Your task to perform on an android device: Open the calendar and show me this week's events? Image 0: 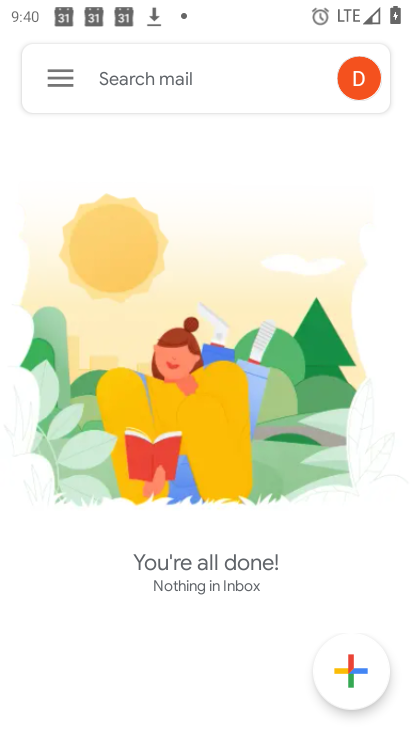
Step 0: press home button
Your task to perform on an android device: Open the calendar and show me this week's events? Image 1: 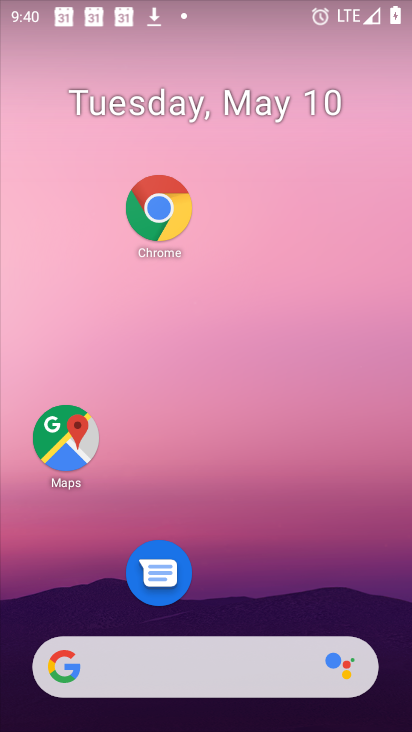
Step 1: drag from (249, 626) to (248, 273)
Your task to perform on an android device: Open the calendar and show me this week's events? Image 2: 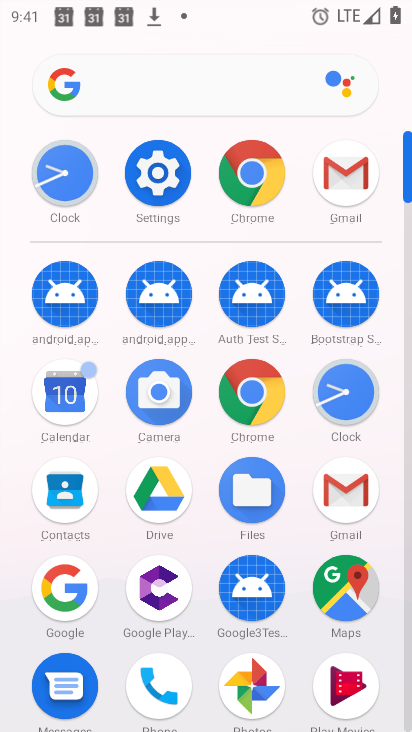
Step 2: click (81, 403)
Your task to perform on an android device: Open the calendar and show me this week's events? Image 3: 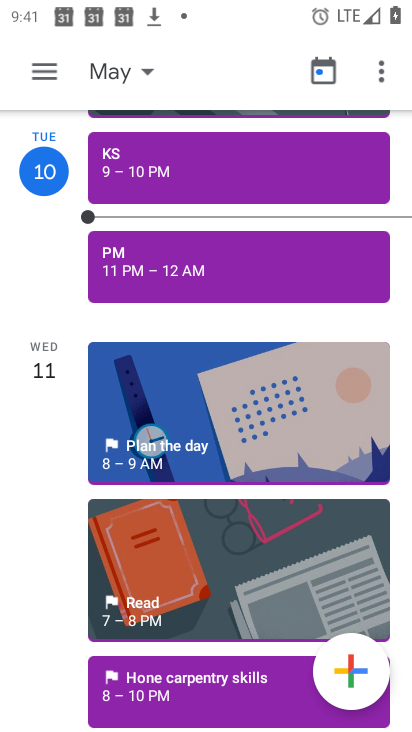
Step 3: click (37, 70)
Your task to perform on an android device: Open the calendar and show me this week's events? Image 4: 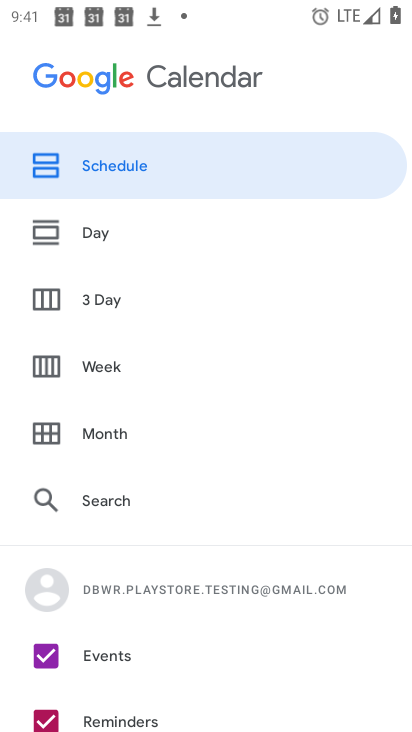
Step 4: click (162, 342)
Your task to perform on an android device: Open the calendar and show me this week's events? Image 5: 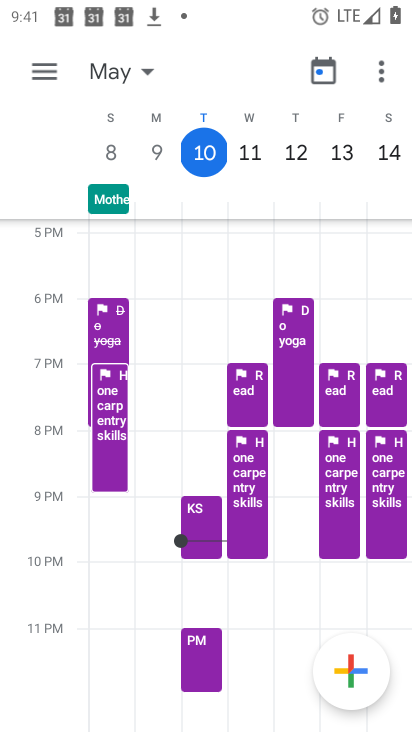
Step 5: task complete